Your task to perform on an android device: allow cookies in the chrome app Image 0: 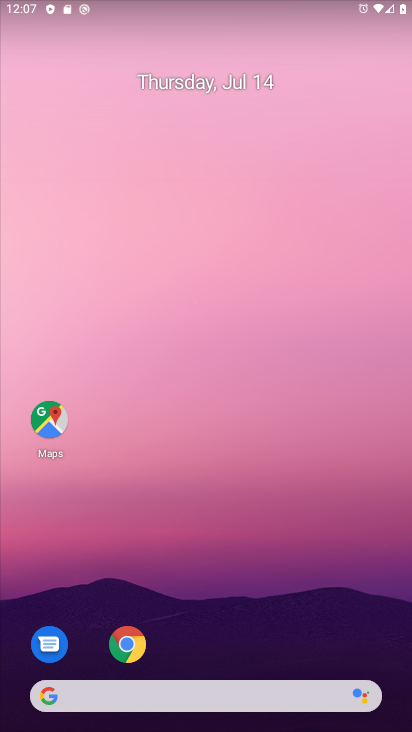
Step 0: click (136, 650)
Your task to perform on an android device: allow cookies in the chrome app Image 1: 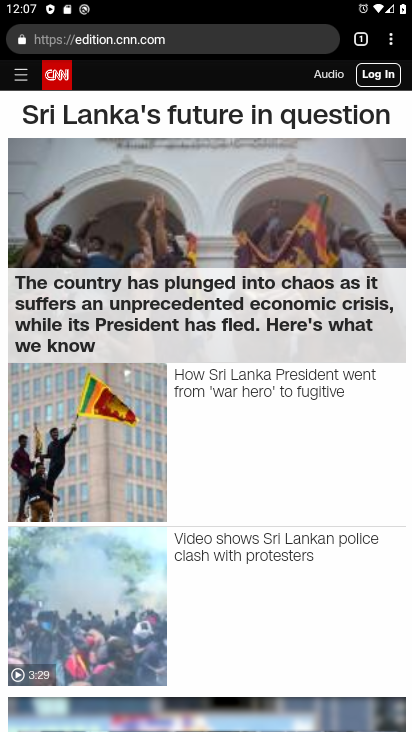
Step 1: click (389, 42)
Your task to perform on an android device: allow cookies in the chrome app Image 2: 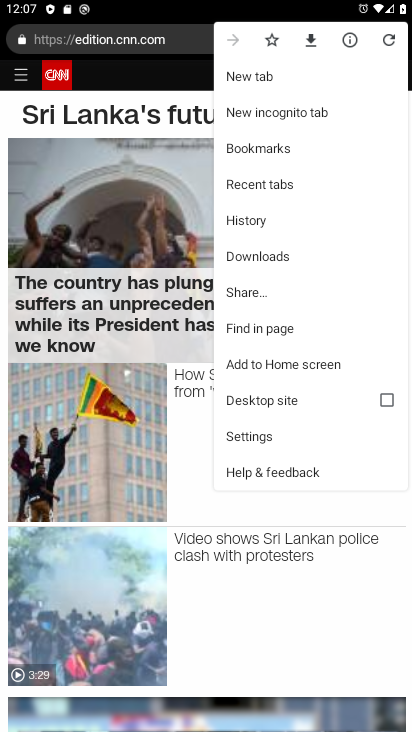
Step 2: click (248, 437)
Your task to perform on an android device: allow cookies in the chrome app Image 3: 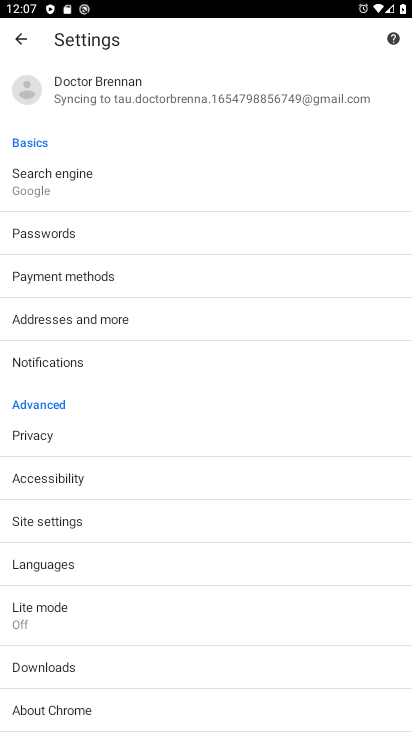
Step 3: click (49, 525)
Your task to perform on an android device: allow cookies in the chrome app Image 4: 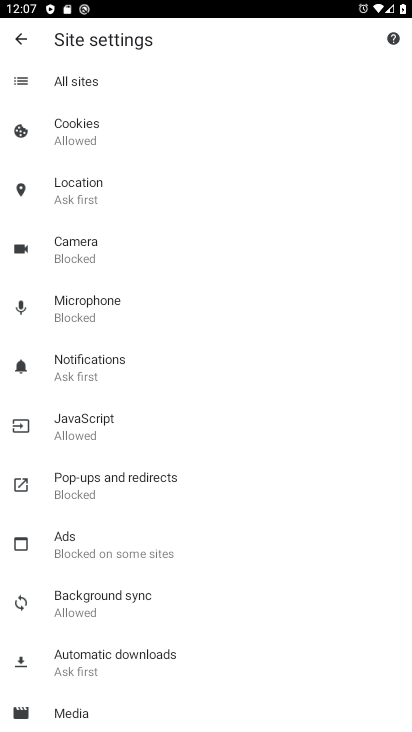
Step 4: click (71, 132)
Your task to perform on an android device: allow cookies in the chrome app Image 5: 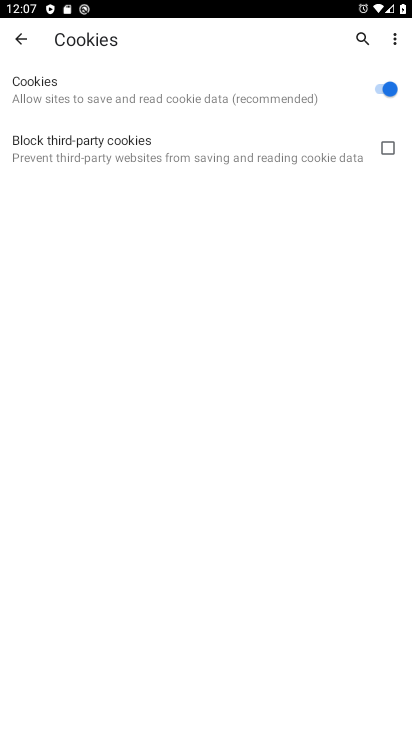
Step 5: task complete